Your task to perform on an android device: open wifi settings Image 0: 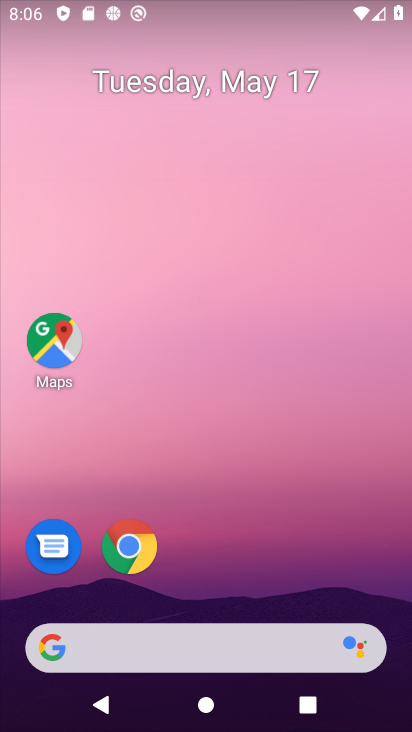
Step 0: drag from (226, 649) to (191, 29)
Your task to perform on an android device: open wifi settings Image 1: 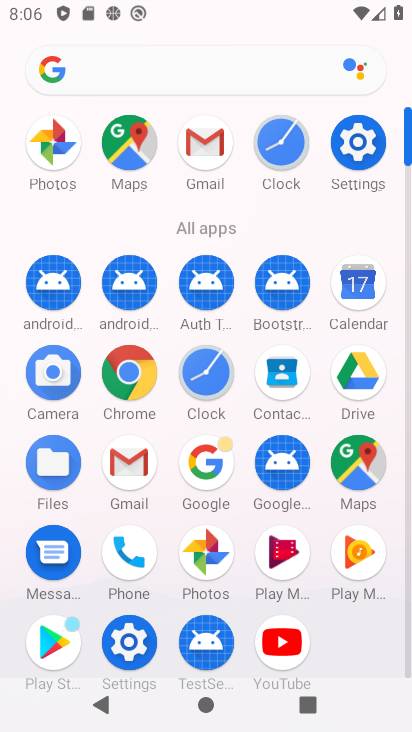
Step 1: drag from (242, 619) to (180, 20)
Your task to perform on an android device: open wifi settings Image 2: 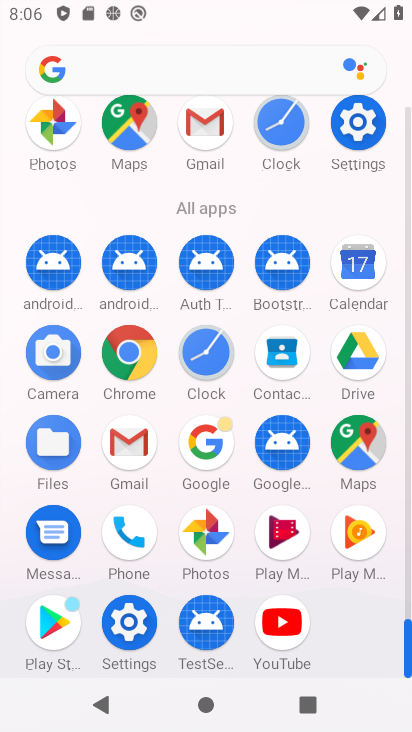
Step 2: click (357, 148)
Your task to perform on an android device: open wifi settings Image 3: 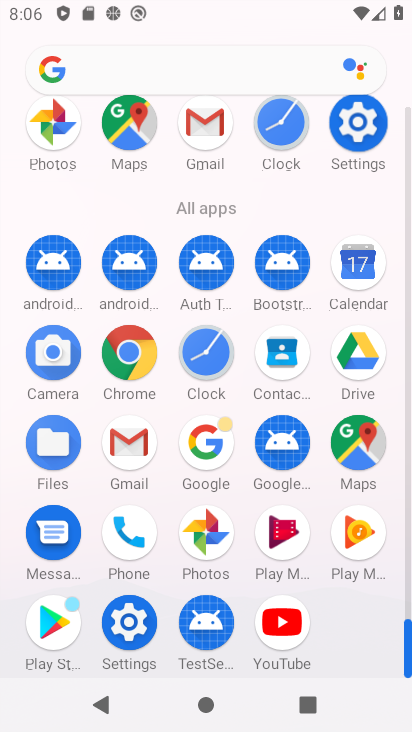
Step 3: click (357, 148)
Your task to perform on an android device: open wifi settings Image 4: 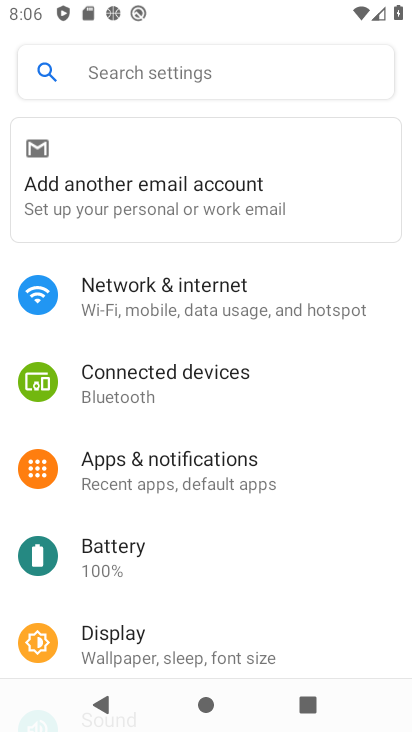
Step 4: click (185, 302)
Your task to perform on an android device: open wifi settings Image 5: 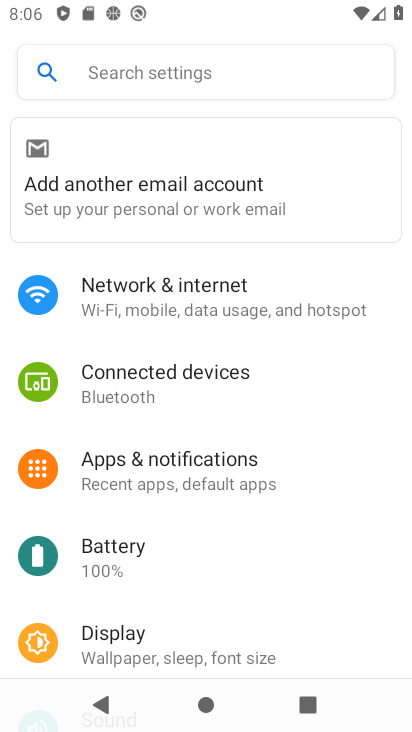
Step 5: click (184, 301)
Your task to perform on an android device: open wifi settings Image 6: 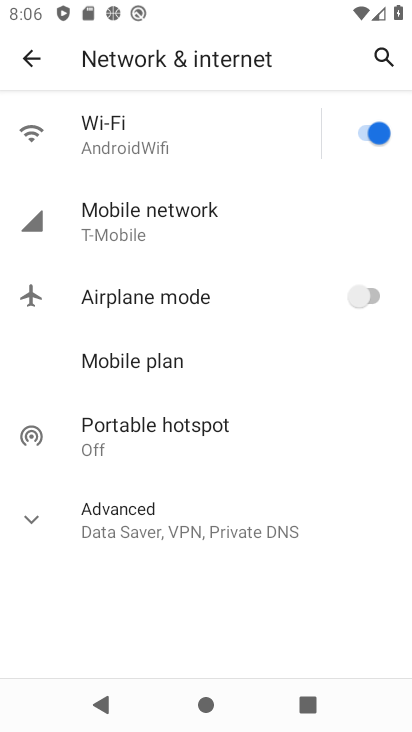
Step 6: task complete